Your task to perform on an android device: turn pop-ups off in chrome Image 0: 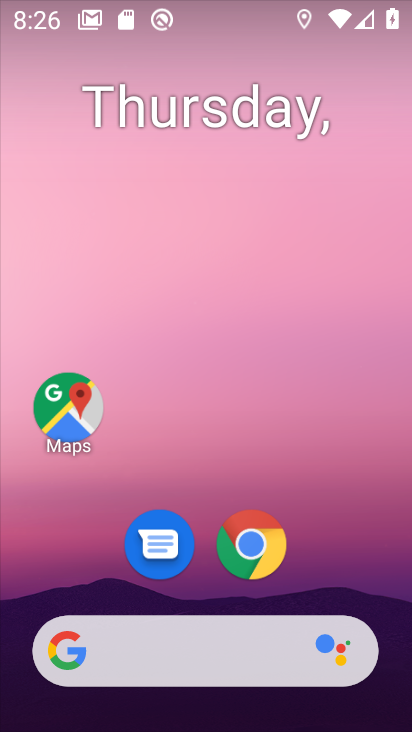
Step 0: drag from (351, 575) to (301, 19)
Your task to perform on an android device: turn pop-ups off in chrome Image 1: 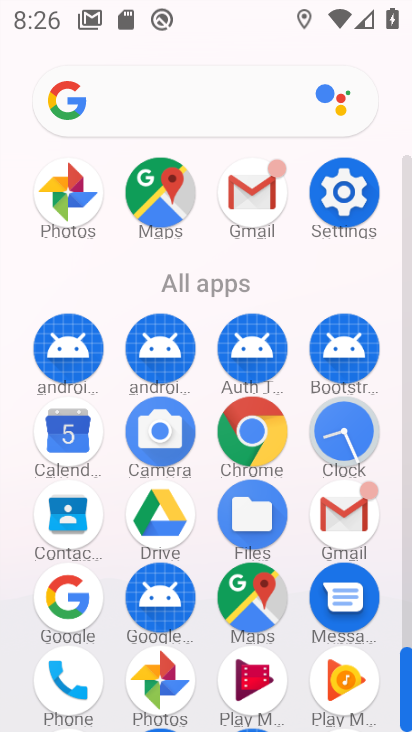
Step 1: click (249, 427)
Your task to perform on an android device: turn pop-ups off in chrome Image 2: 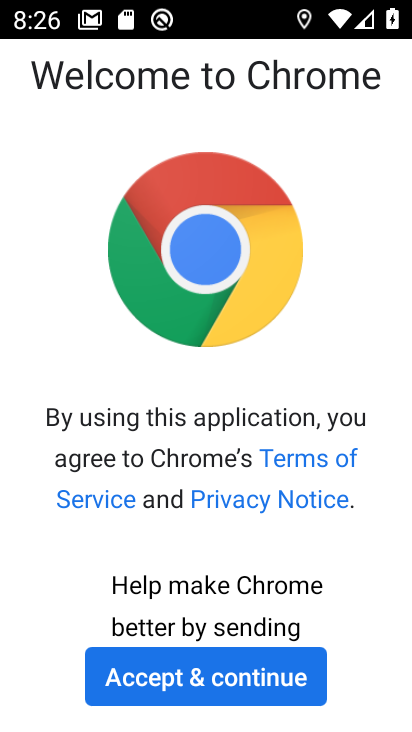
Step 2: click (218, 681)
Your task to perform on an android device: turn pop-ups off in chrome Image 3: 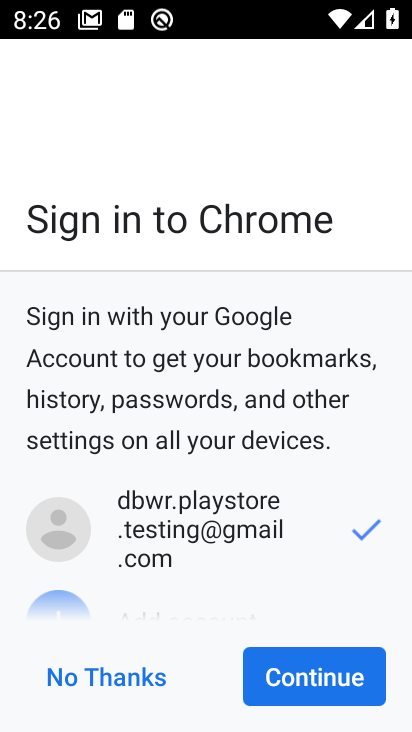
Step 3: click (271, 669)
Your task to perform on an android device: turn pop-ups off in chrome Image 4: 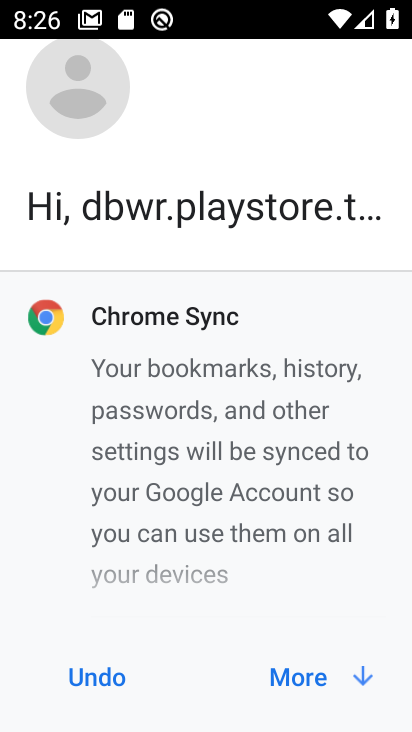
Step 4: click (284, 678)
Your task to perform on an android device: turn pop-ups off in chrome Image 5: 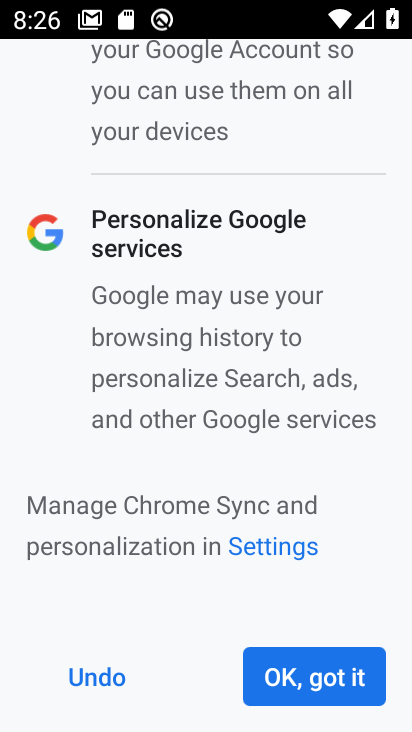
Step 5: click (284, 678)
Your task to perform on an android device: turn pop-ups off in chrome Image 6: 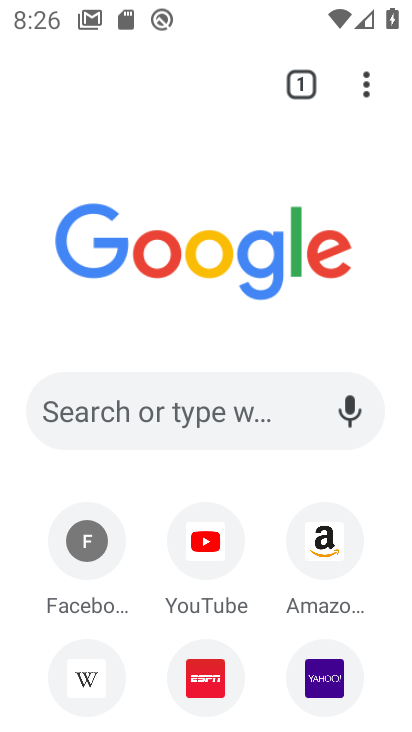
Step 6: drag from (364, 69) to (180, 595)
Your task to perform on an android device: turn pop-ups off in chrome Image 7: 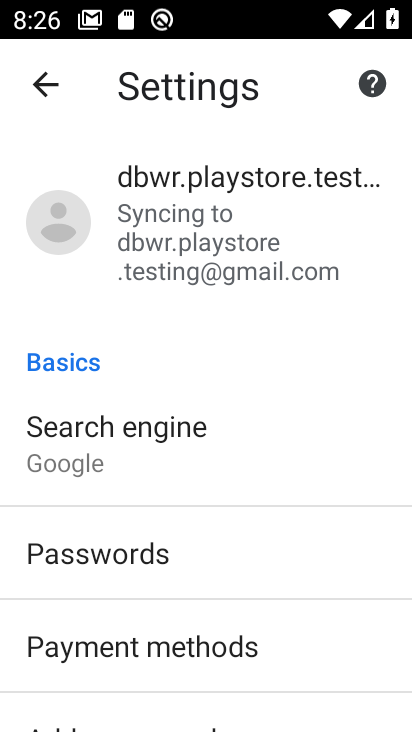
Step 7: drag from (249, 579) to (272, 185)
Your task to perform on an android device: turn pop-ups off in chrome Image 8: 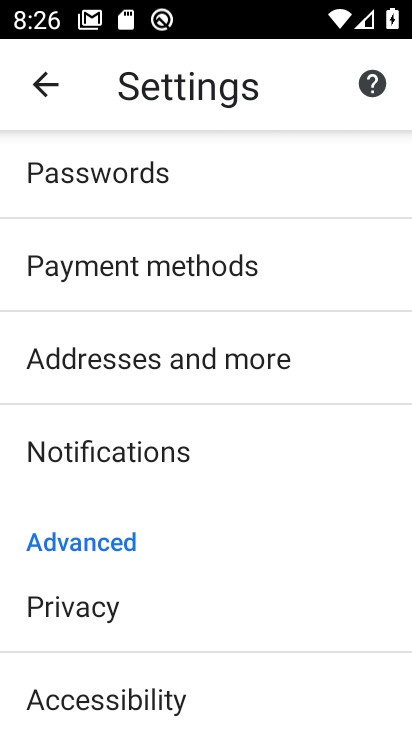
Step 8: drag from (276, 592) to (307, 248)
Your task to perform on an android device: turn pop-ups off in chrome Image 9: 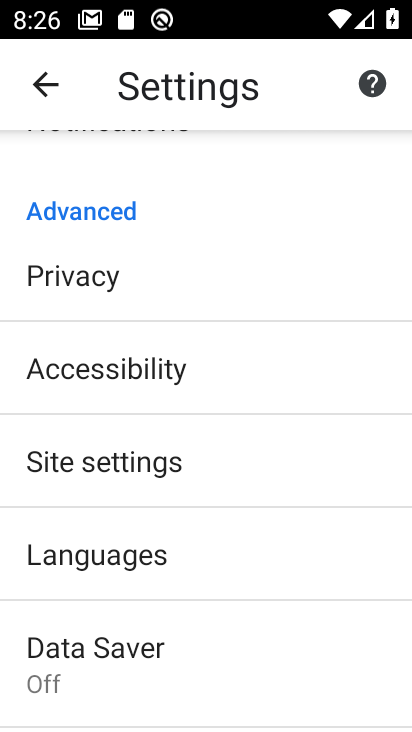
Step 9: click (178, 460)
Your task to perform on an android device: turn pop-ups off in chrome Image 10: 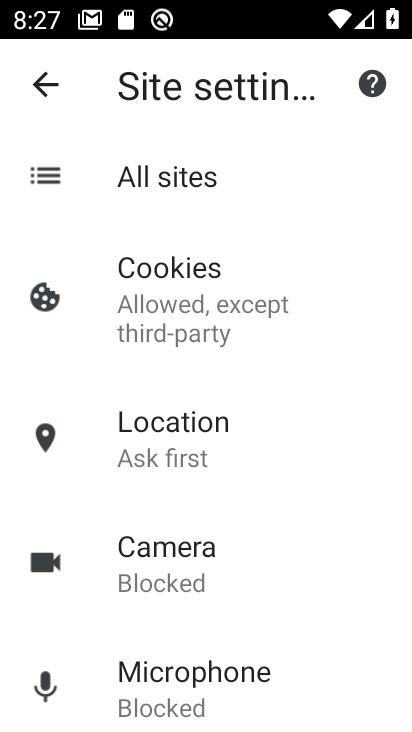
Step 10: drag from (276, 611) to (323, 215)
Your task to perform on an android device: turn pop-ups off in chrome Image 11: 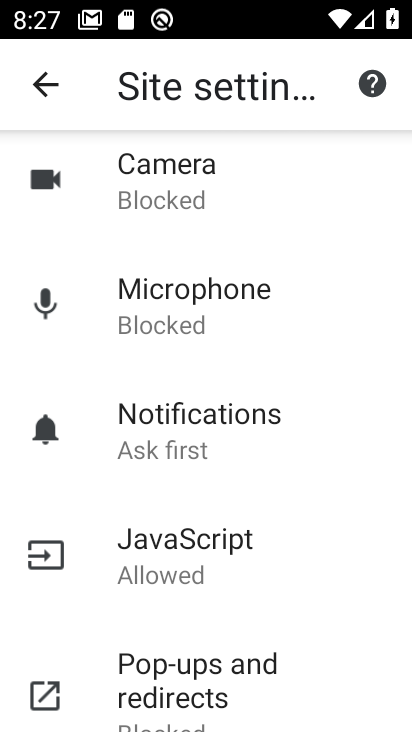
Step 11: click (276, 667)
Your task to perform on an android device: turn pop-ups off in chrome Image 12: 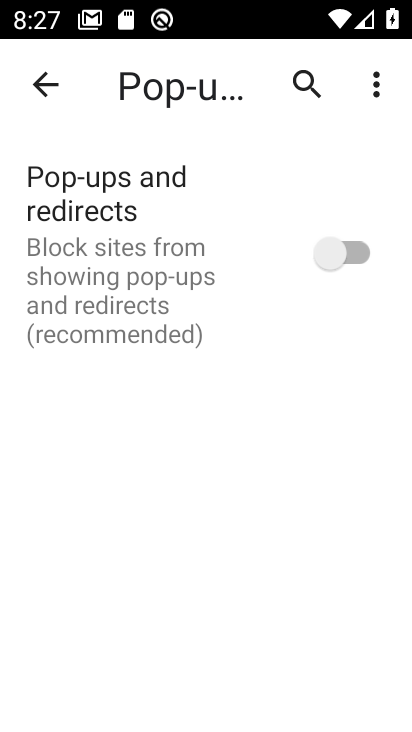
Step 12: task complete